Your task to perform on an android device: Open Maps and search for coffee Image 0: 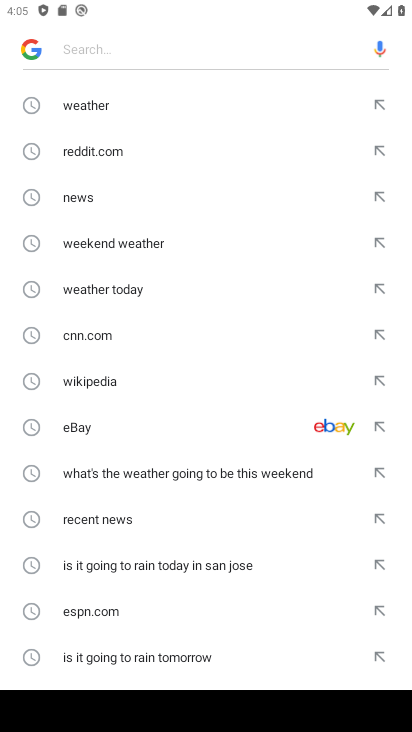
Step 0: press home button
Your task to perform on an android device: Open Maps and search for coffee Image 1: 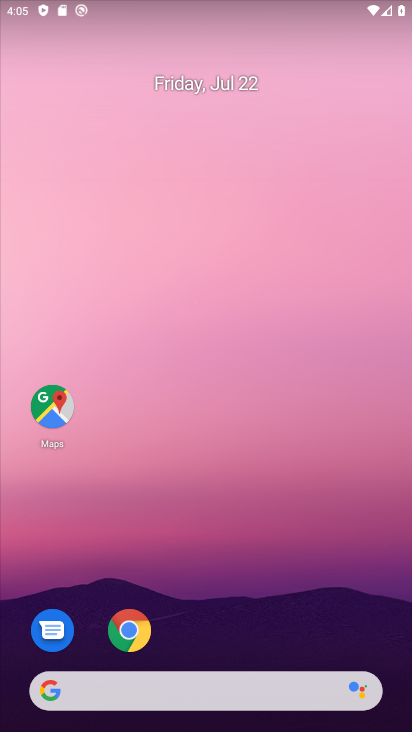
Step 1: click (55, 409)
Your task to perform on an android device: Open Maps and search for coffee Image 2: 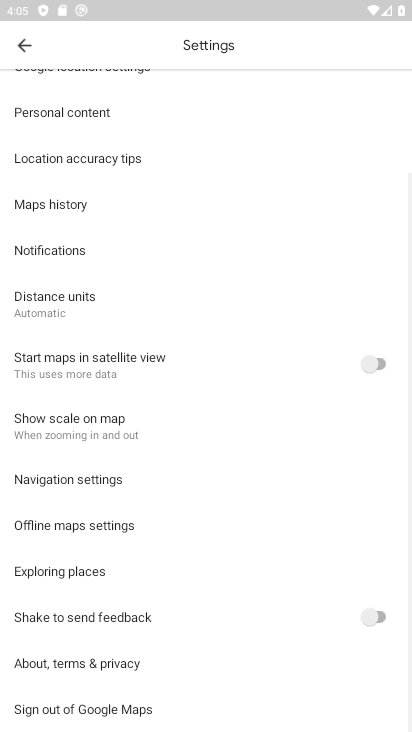
Step 2: click (18, 43)
Your task to perform on an android device: Open Maps and search for coffee Image 3: 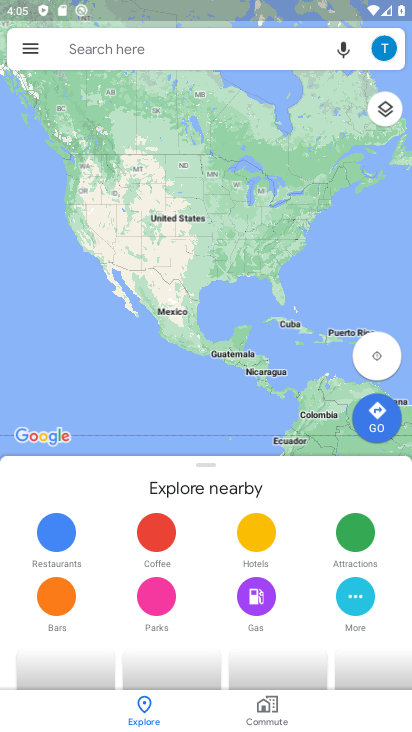
Step 3: click (161, 50)
Your task to perform on an android device: Open Maps and search for coffee Image 4: 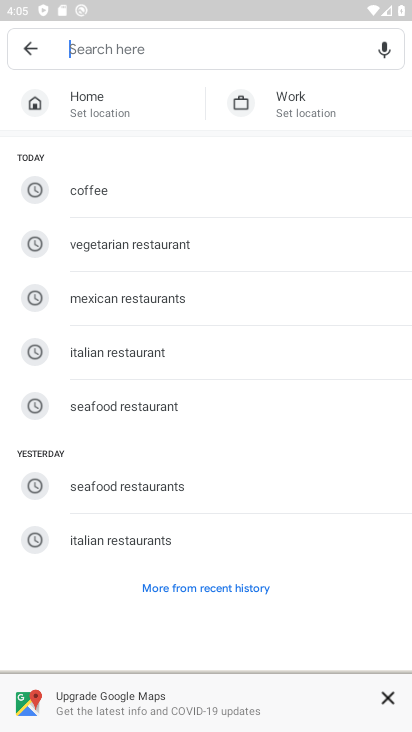
Step 4: click (180, 58)
Your task to perform on an android device: Open Maps and search for coffee Image 5: 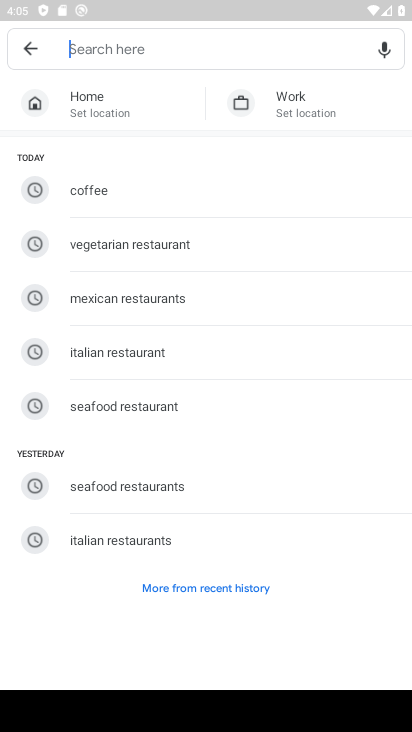
Step 5: type "Coffee"
Your task to perform on an android device: Open Maps and search for coffee Image 6: 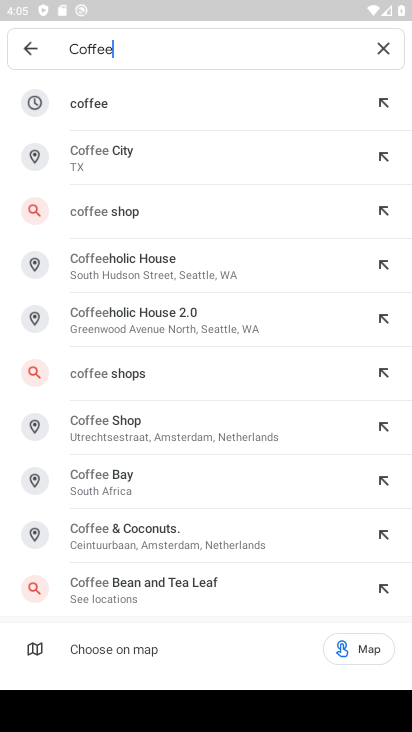
Step 6: click (100, 108)
Your task to perform on an android device: Open Maps and search for coffee Image 7: 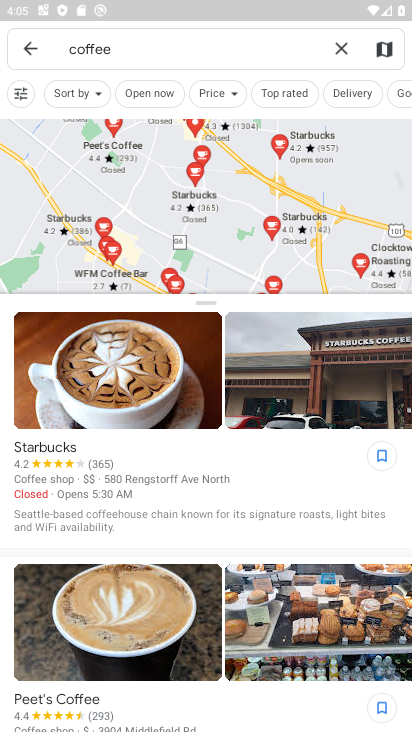
Step 7: task complete